Your task to perform on an android device: open a new tab in the chrome app Image 0: 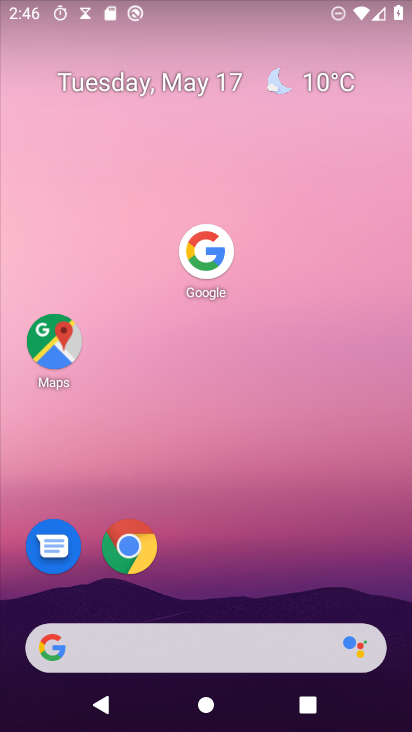
Step 0: press home button
Your task to perform on an android device: open a new tab in the chrome app Image 1: 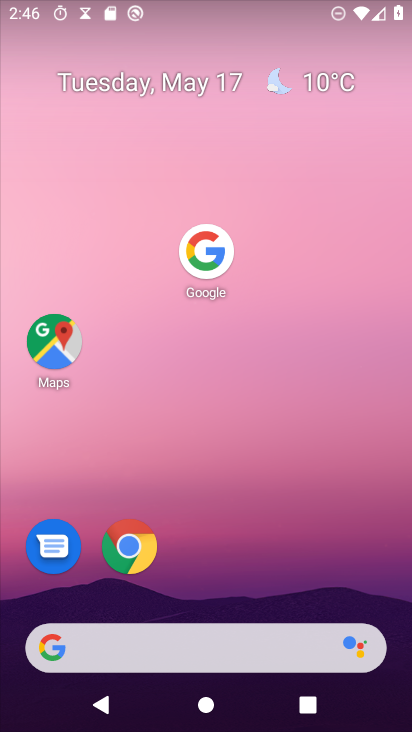
Step 1: click (136, 555)
Your task to perform on an android device: open a new tab in the chrome app Image 2: 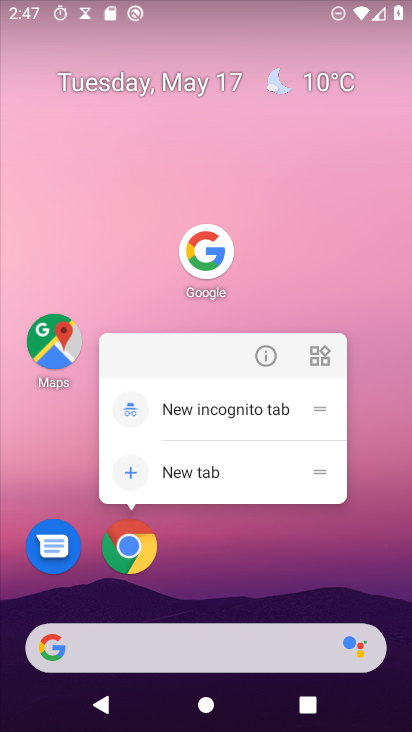
Step 2: click (147, 552)
Your task to perform on an android device: open a new tab in the chrome app Image 3: 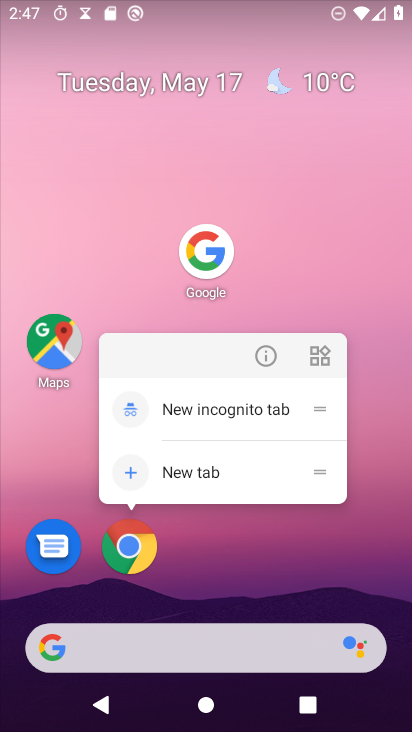
Step 3: click (122, 555)
Your task to perform on an android device: open a new tab in the chrome app Image 4: 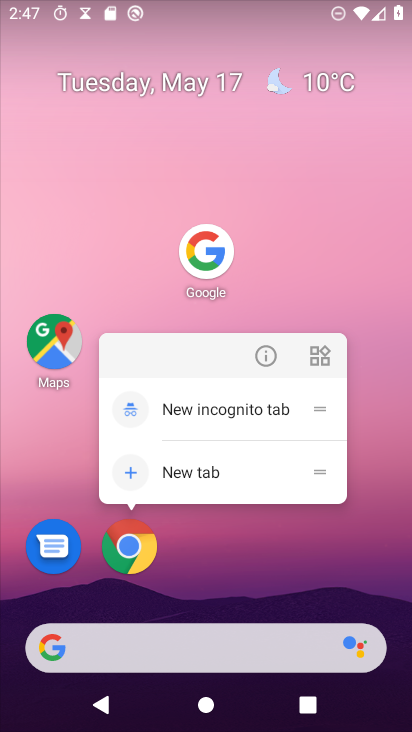
Step 4: click (134, 545)
Your task to perform on an android device: open a new tab in the chrome app Image 5: 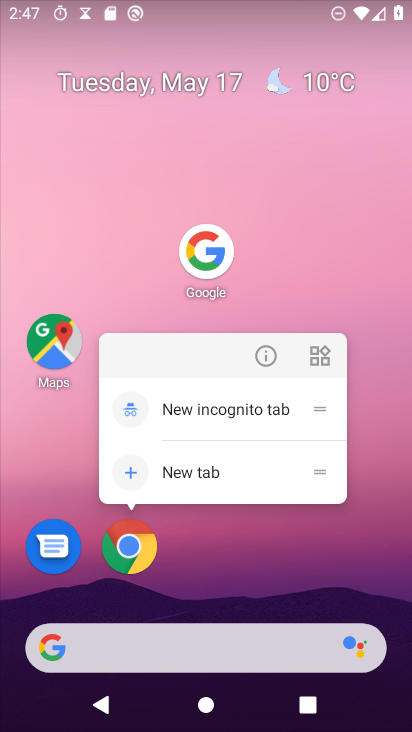
Step 5: click (134, 543)
Your task to perform on an android device: open a new tab in the chrome app Image 6: 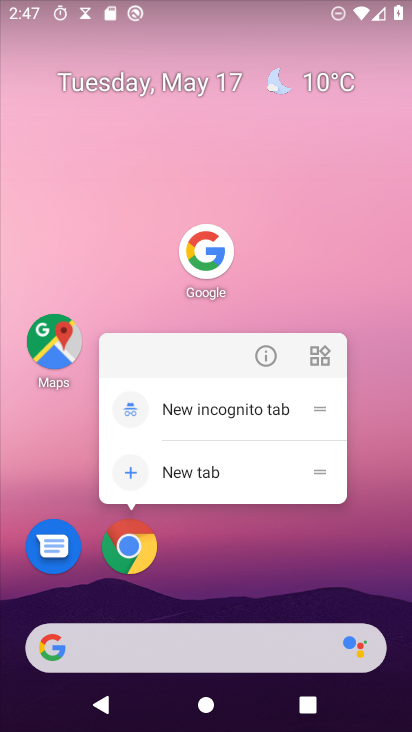
Step 6: drag from (209, 646) to (354, 150)
Your task to perform on an android device: open a new tab in the chrome app Image 7: 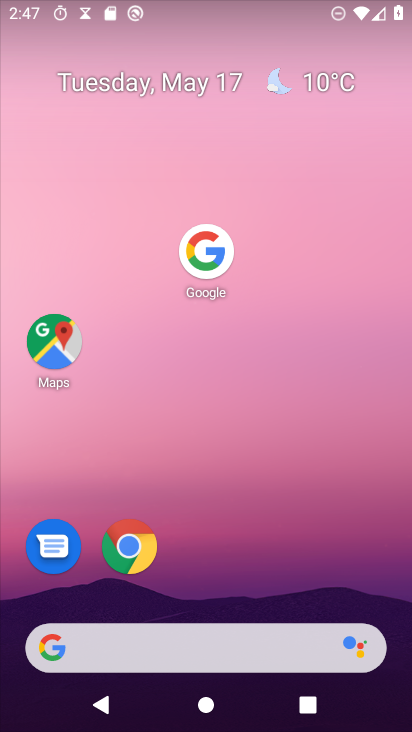
Step 7: drag from (173, 636) to (319, 139)
Your task to perform on an android device: open a new tab in the chrome app Image 8: 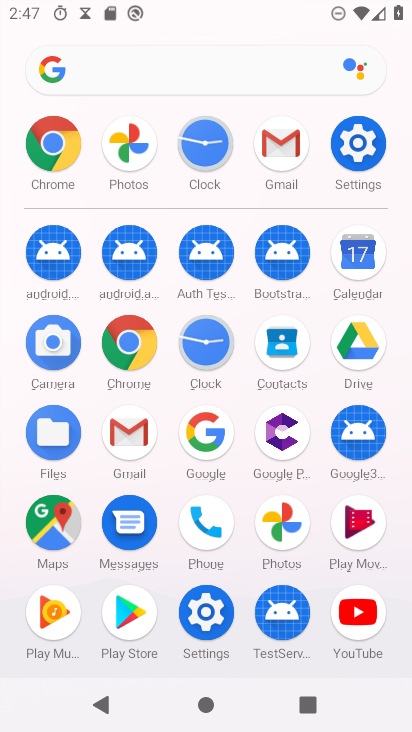
Step 8: click (60, 154)
Your task to perform on an android device: open a new tab in the chrome app Image 9: 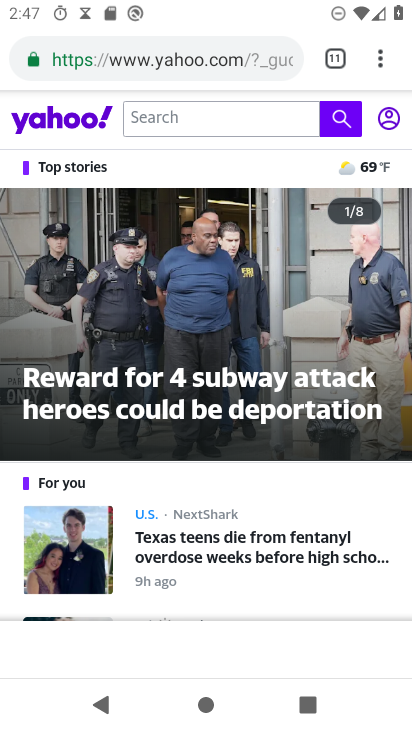
Step 9: task complete